Your task to perform on an android device: Show me popular games on the Play Store Image 0: 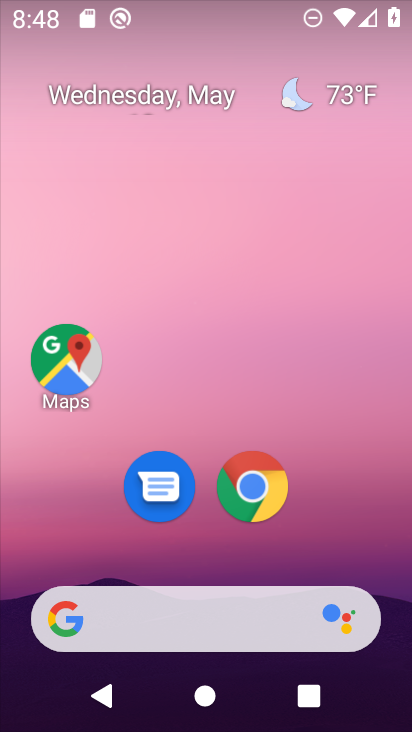
Step 0: drag from (409, 652) to (305, 215)
Your task to perform on an android device: Show me popular games on the Play Store Image 1: 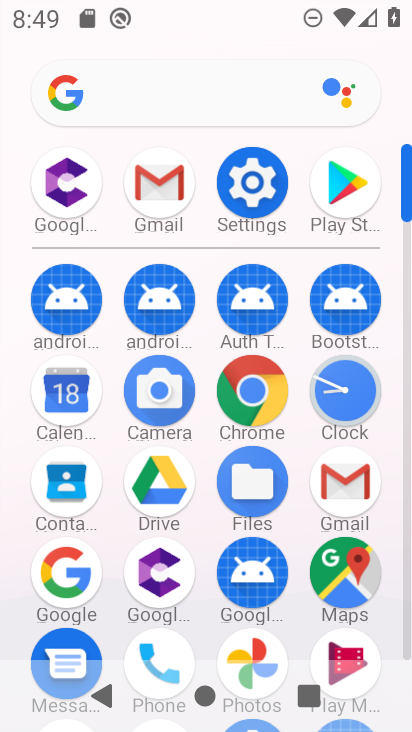
Step 1: click (409, 645)
Your task to perform on an android device: Show me popular games on the Play Store Image 2: 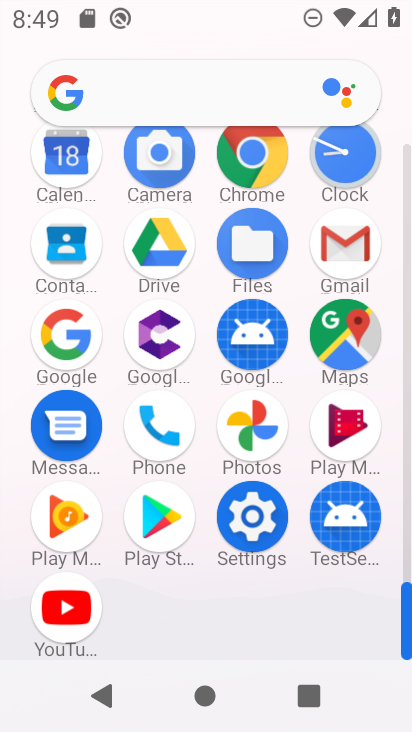
Step 2: click (171, 519)
Your task to perform on an android device: Show me popular games on the Play Store Image 3: 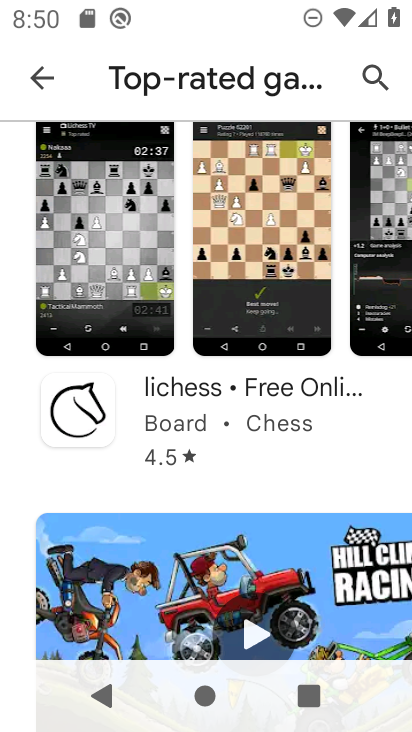
Step 3: task complete